Your task to perform on an android device: open app "eBay: The shopping marketplace" (install if not already installed) Image 0: 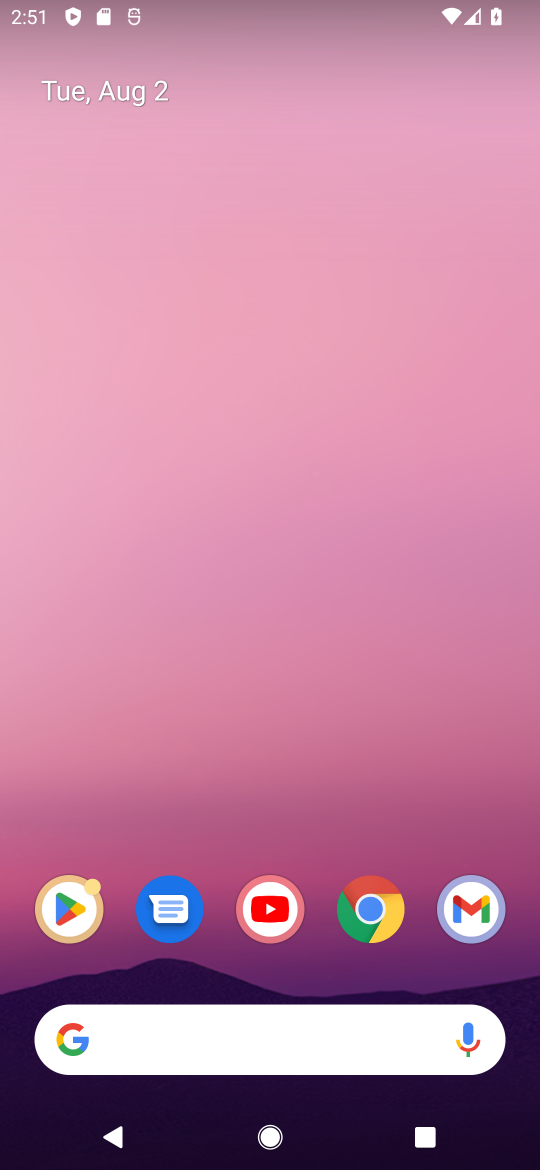
Step 0: click (72, 901)
Your task to perform on an android device: open app "eBay: The shopping marketplace" (install if not already installed) Image 1: 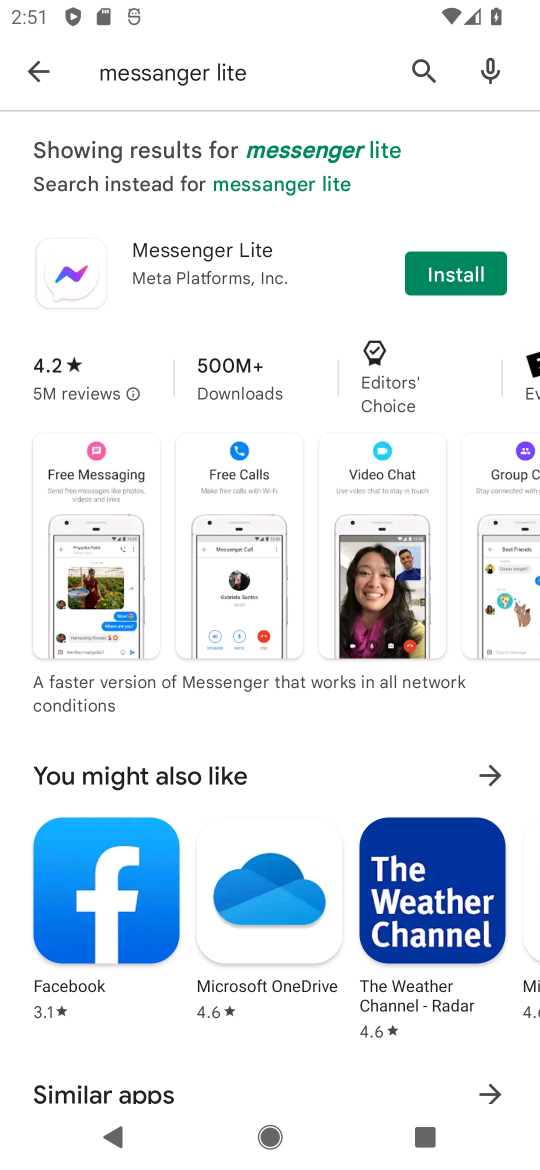
Step 1: click (414, 64)
Your task to perform on an android device: open app "eBay: The shopping marketplace" (install if not already installed) Image 2: 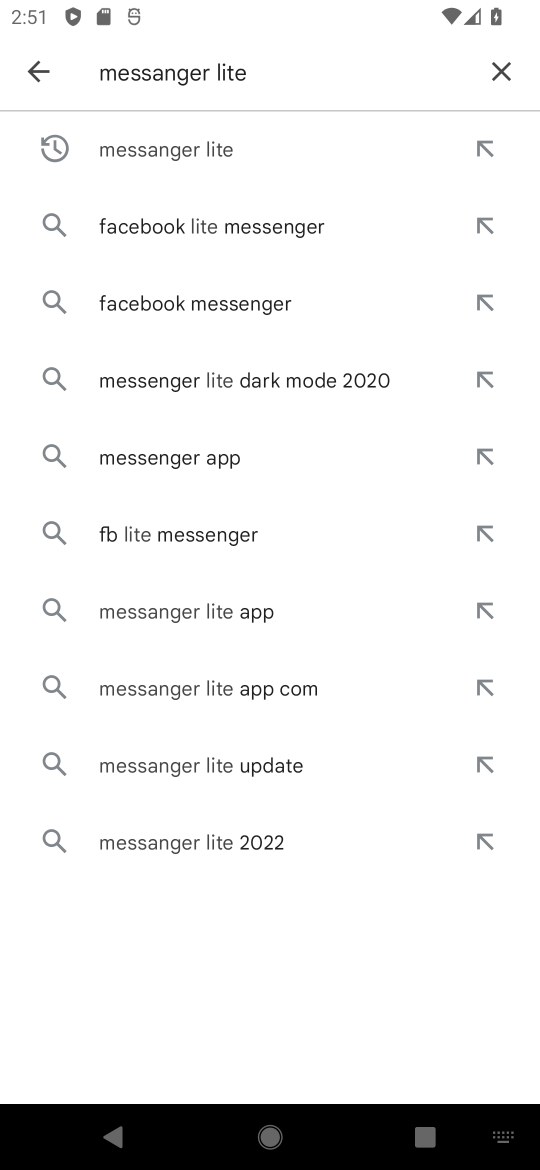
Step 2: click (506, 67)
Your task to perform on an android device: open app "eBay: The shopping marketplace" (install if not already installed) Image 3: 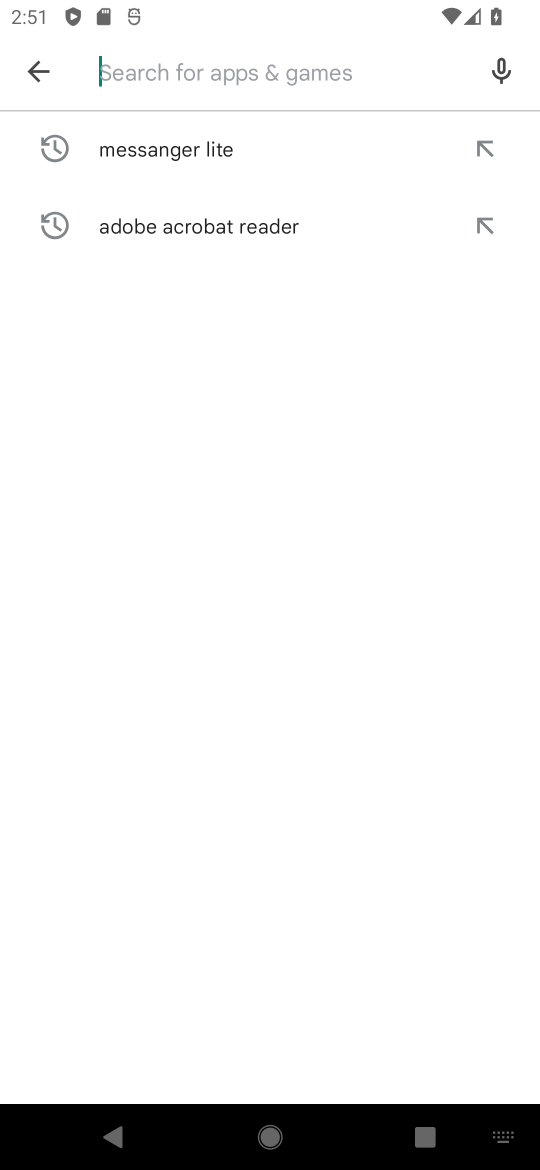
Step 3: click (187, 60)
Your task to perform on an android device: open app "eBay: The shopping marketplace" (install if not already installed) Image 4: 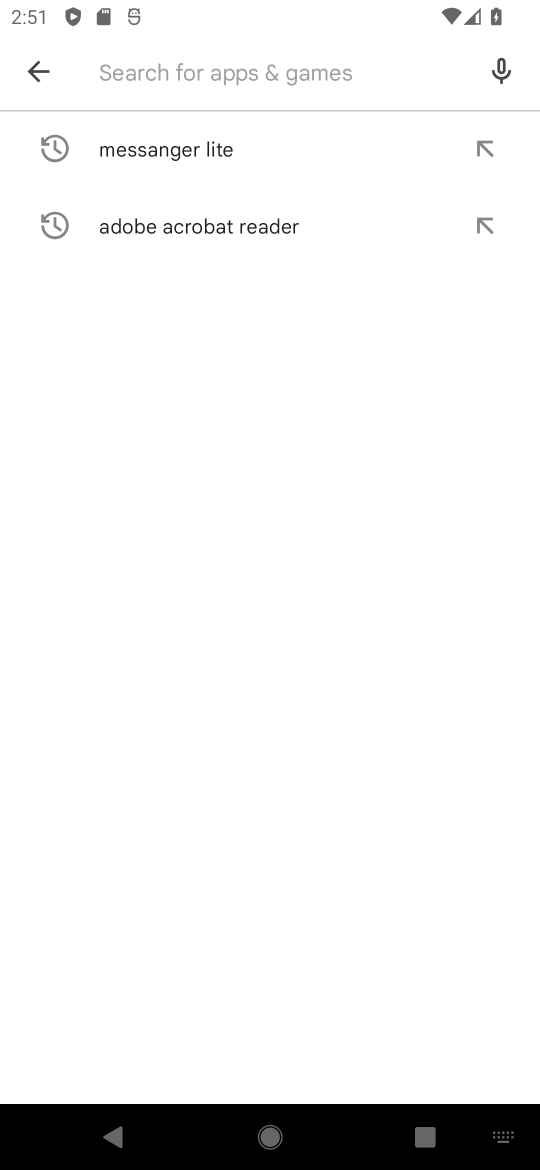
Step 4: type "ebay"
Your task to perform on an android device: open app "eBay: The shopping marketplace" (install if not already installed) Image 5: 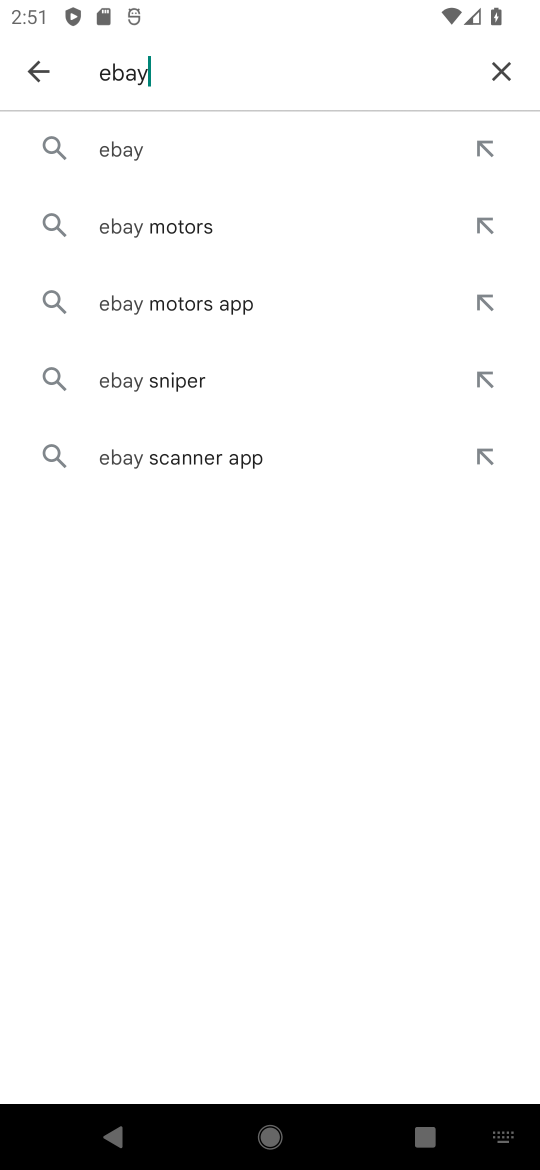
Step 5: click (136, 136)
Your task to perform on an android device: open app "eBay: The shopping marketplace" (install if not already installed) Image 6: 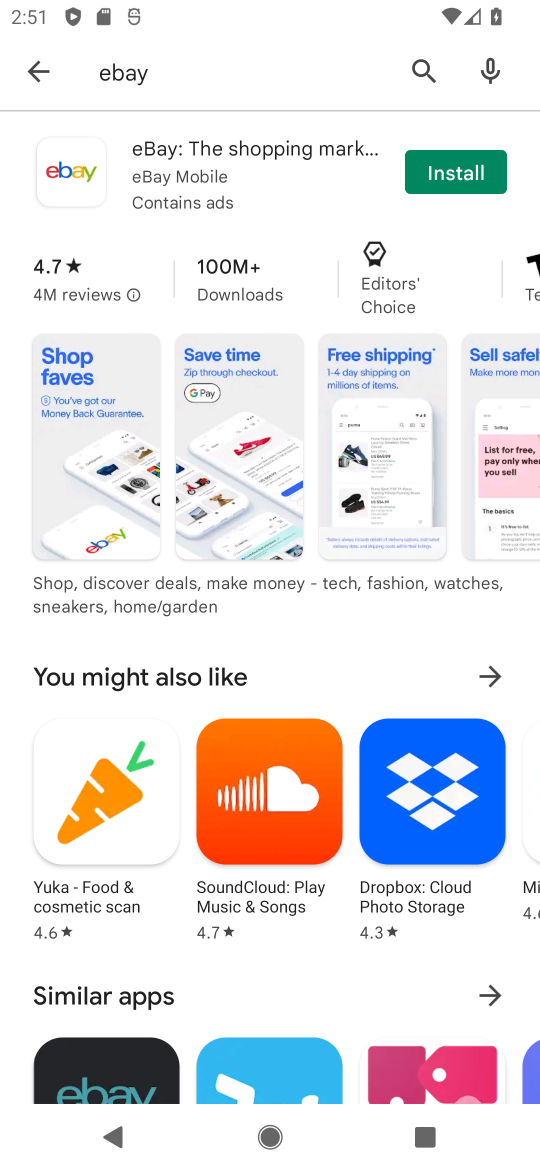
Step 6: click (452, 168)
Your task to perform on an android device: open app "eBay: The shopping marketplace" (install if not already installed) Image 7: 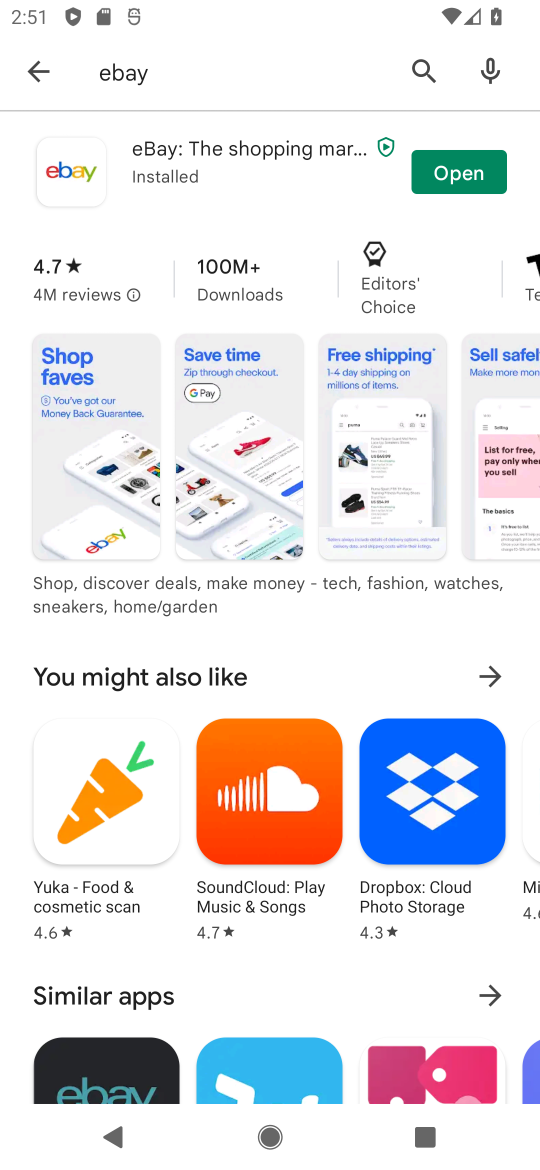
Step 7: click (443, 189)
Your task to perform on an android device: open app "eBay: The shopping marketplace" (install if not already installed) Image 8: 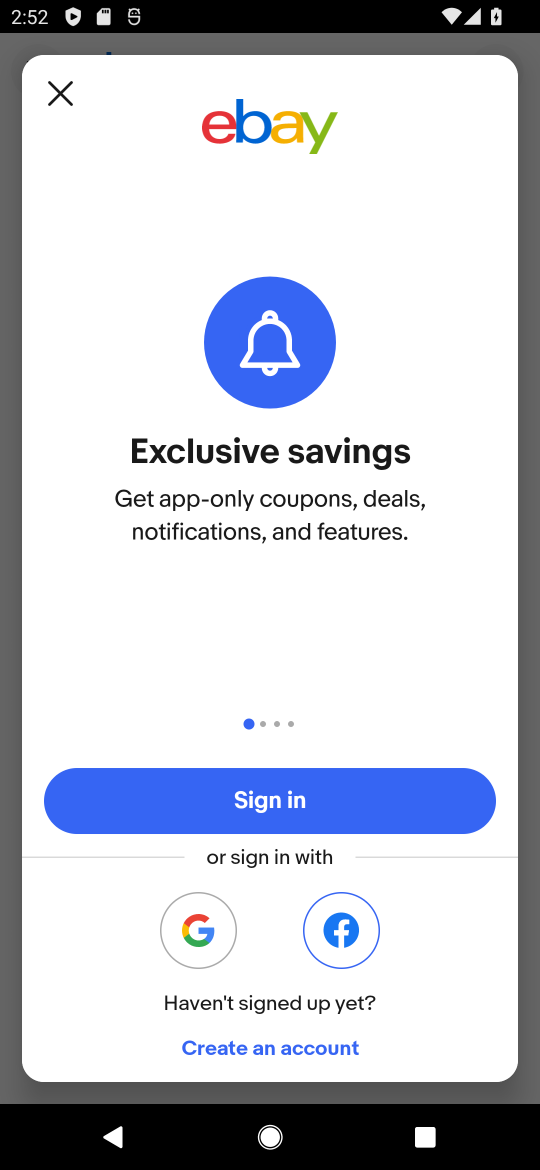
Step 8: task complete